Your task to perform on an android device: Go to Google maps Image 0: 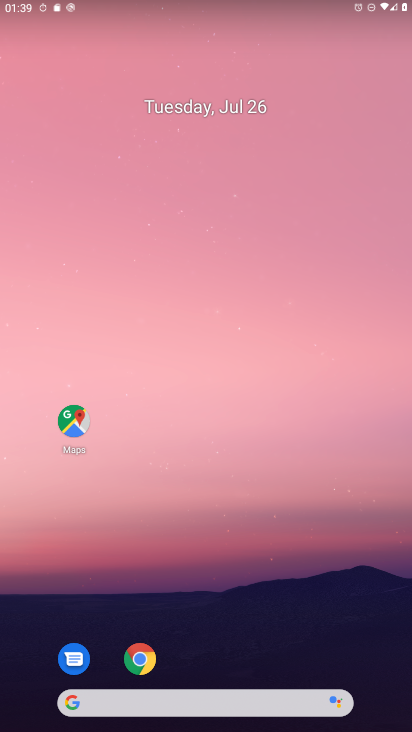
Step 0: press home button
Your task to perform on an android device: Go to Google maps Image 1: 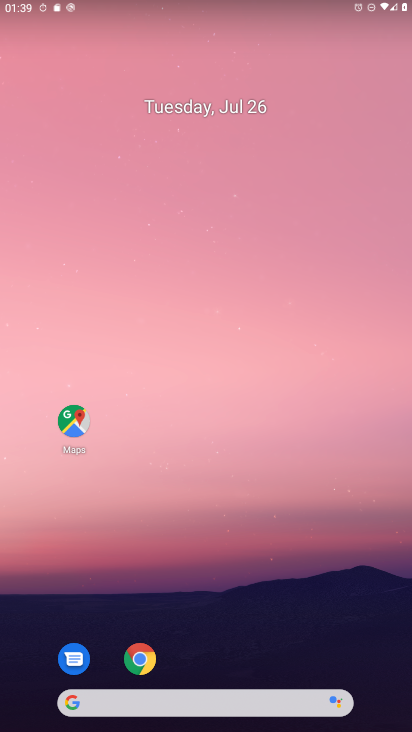
Step 1: press home button
Your task to perform on an android device: Go to Google maps Image 2: 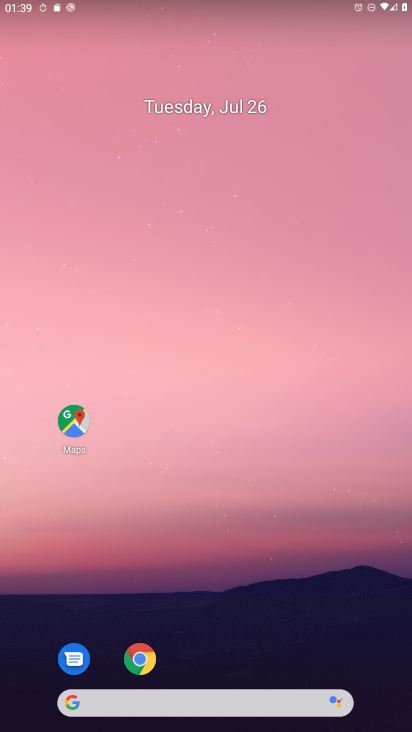
Step 2: click (62, 408)
Your task to perform on an android device: Go to Google maps Image 3: 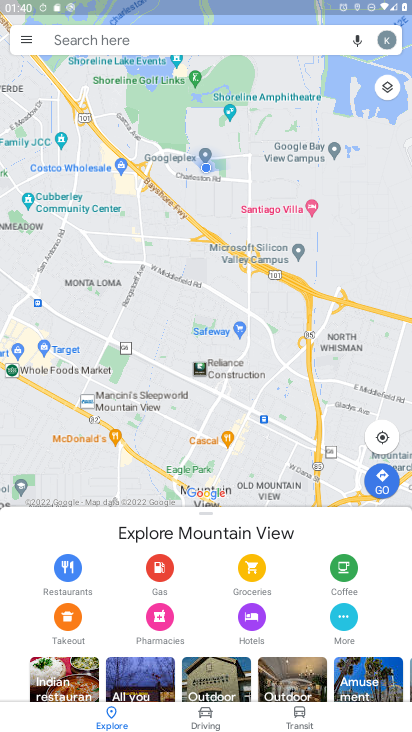
Step 3: task complete